Your task to perform on an android device: Open network settings Image 0: 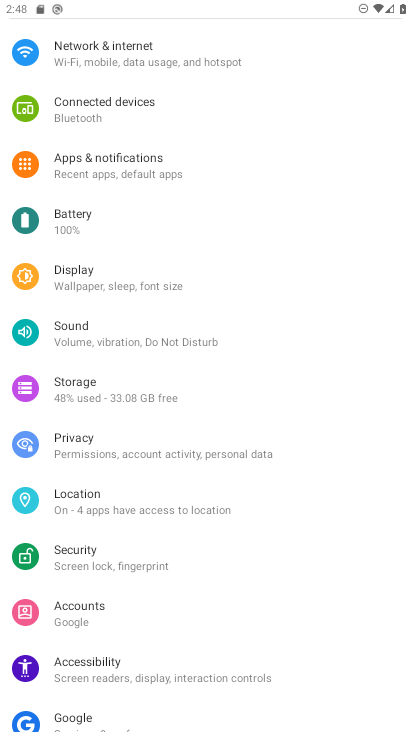
Step 0: press home button
Your task to perform on an android device: Open network settings Image 1: 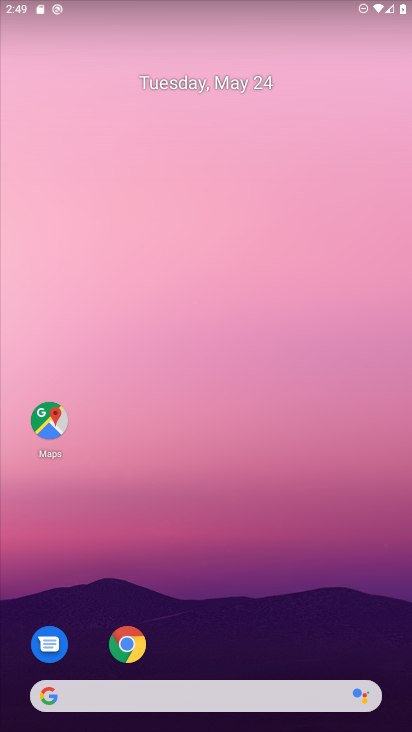
Step 1: drag from (335, 545) to (307, 207)
Your task to perform on an android device: Open network settings Image 2: 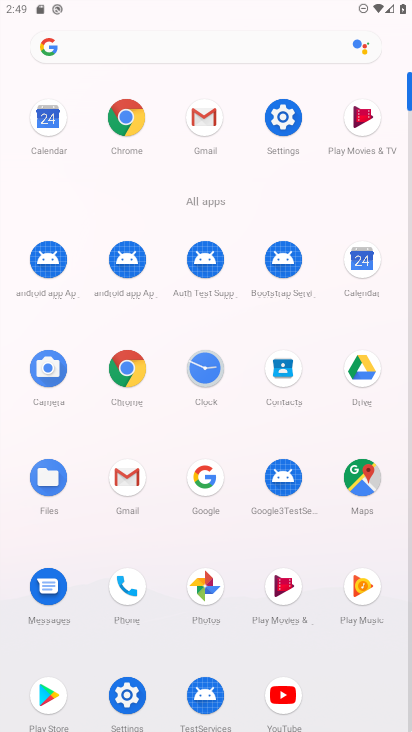
Step 2: click (295, 133)
Your task to perform on an android device: Open network settings Image 3: 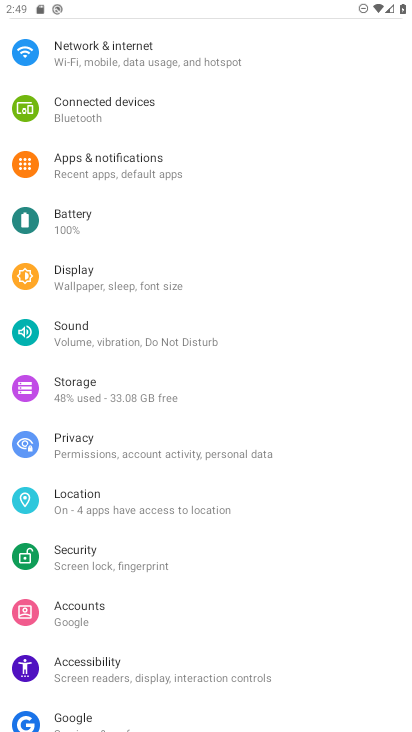
Step 3: click (135, 54)
Your task to perform on an android device: Open network settings Image 4: 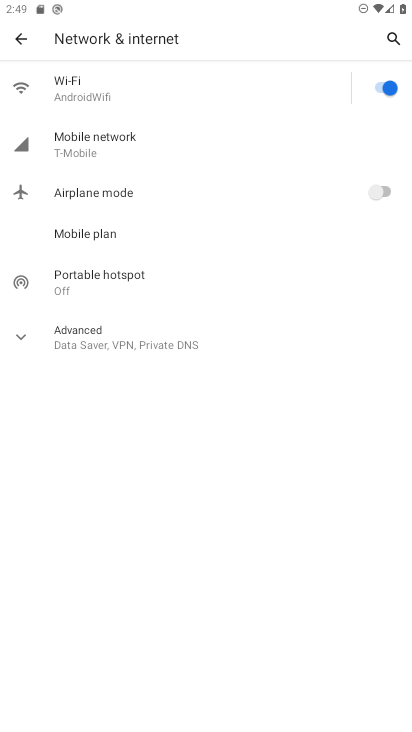
Step 4: click (117, 151)
Your task to perform on an android device: Open network settings Image 5: 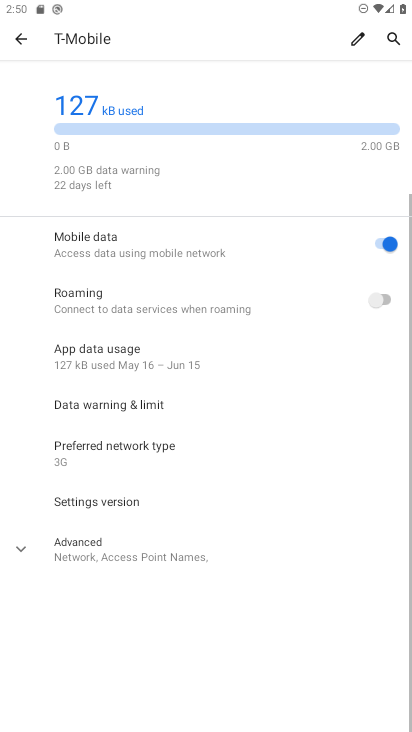
Step 5: task complete